Your task to perform on an android device: read, delete, or share a saved page in the chrome app Image 0: 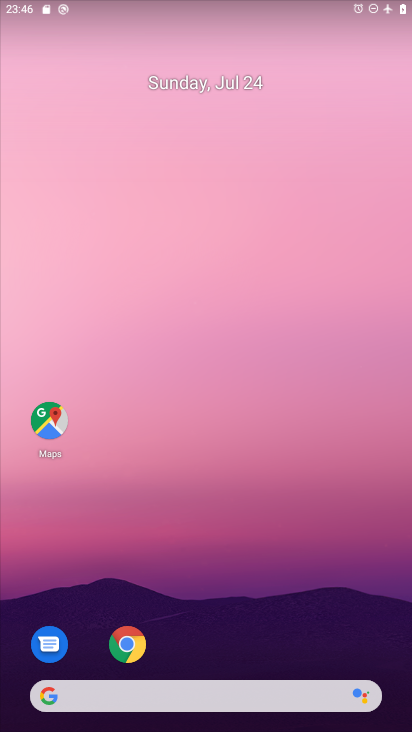
Step 0: click (132, 641)
Your task to perform on an android device: read, delete, or share a saved page in the chrome app Image 1: 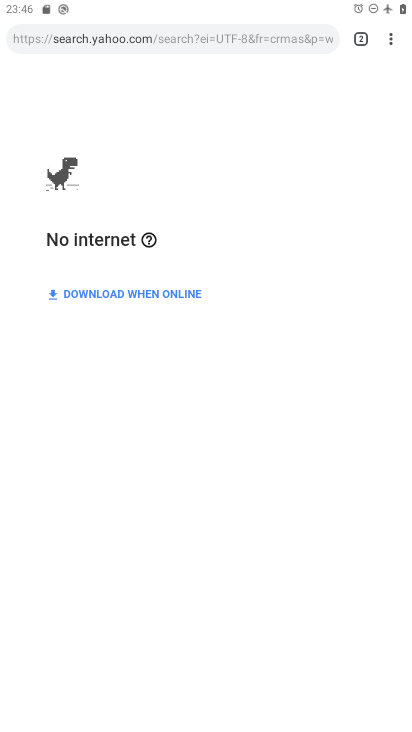
Step 1: click (390, 45)
Your task to perform on an android device: read, delete, or share a saved page in the chrome app Image 2: 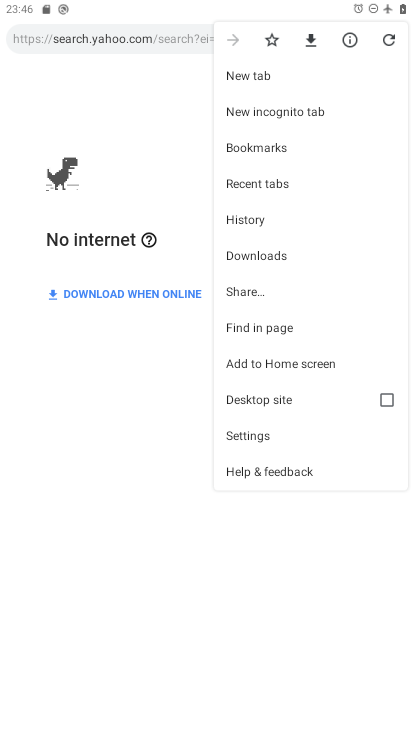
Step 2: click (264, 253)
Your task to perform on an android device: read, delete, or share a saved page in the chrome app Image 3: 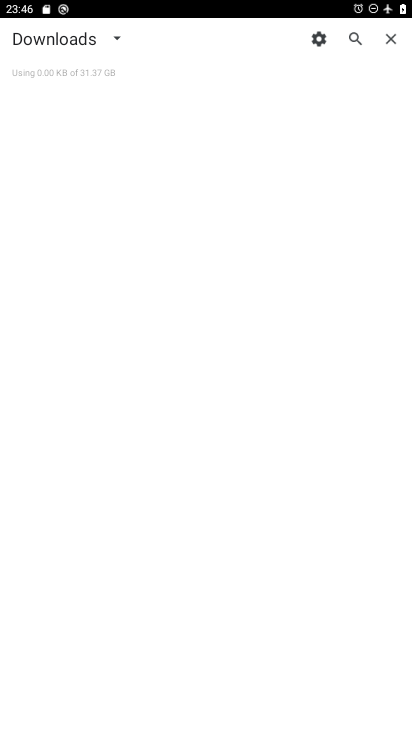
Step 3: click (113, 38)
Your task to perform on an android device: read, delete, or share a saved page in the chrome app Image 4: 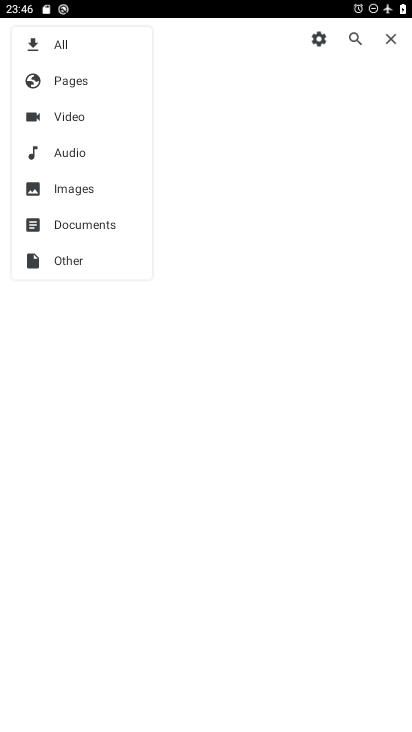
Step 4: click (61, 77)
Your task to perform on an android device: read, delete, or share a saved page in the chrome app Image 5: 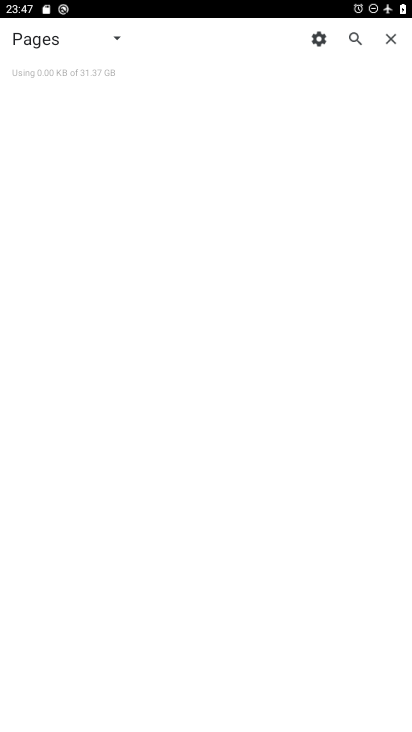
Step 5: task complete